Your task to perform on an android device: open wifi settings Image 0: 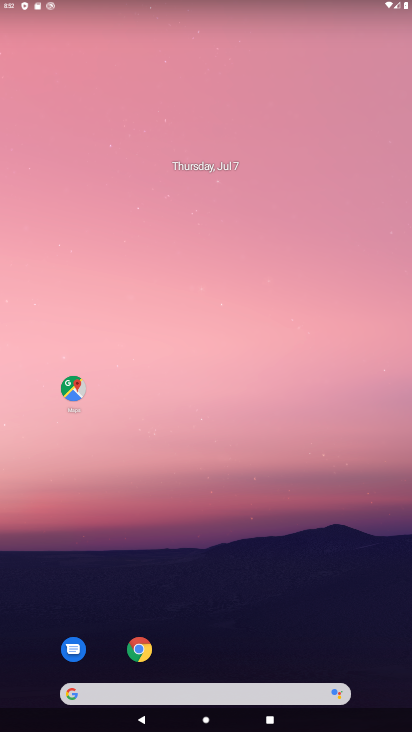
Step 0: click (300, 556)
Your task to perform on an android device: open wifi settings Image 1: 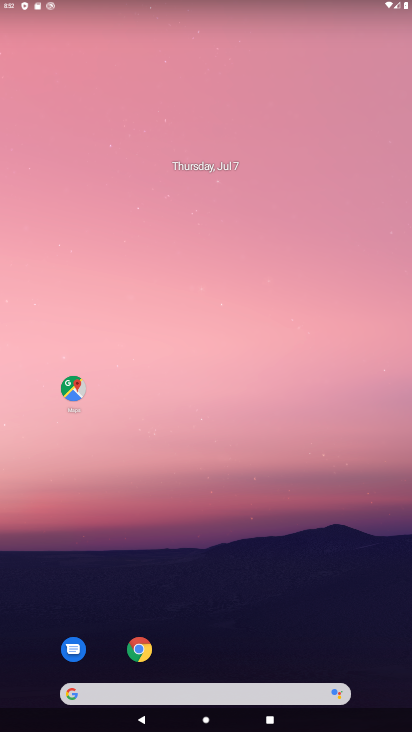
Step 1: drag from (300, 556) to (344, 396)
Your task to perform on an android device: open wifi settings Image 2: 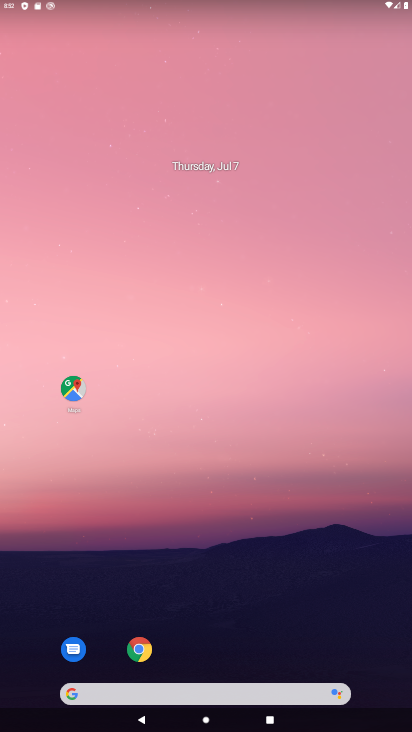
Step 2: drag from (282, 634) to (309, 196)
Your task to perform on an android device: open wifi settings Image 3: 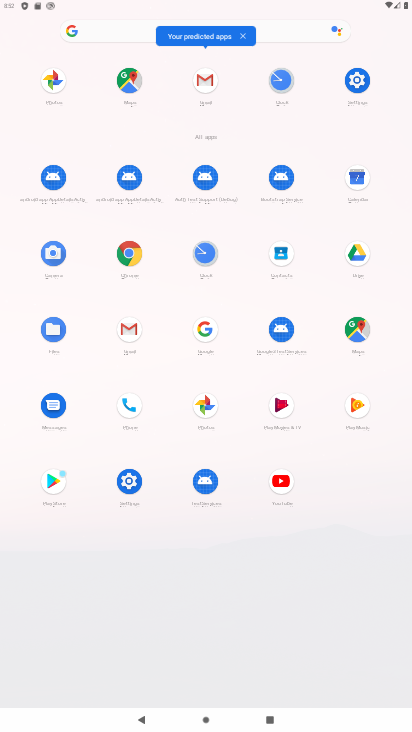
Step 3: click (354, 83)
Your task to perform on an android device: open wifi settings Image 4: 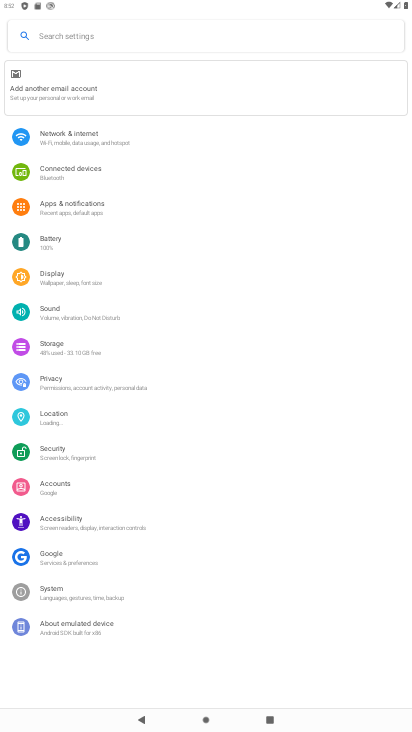
Step 4: click (81, 142)
Your task to perform on an android device: open wifi settings Image 5: 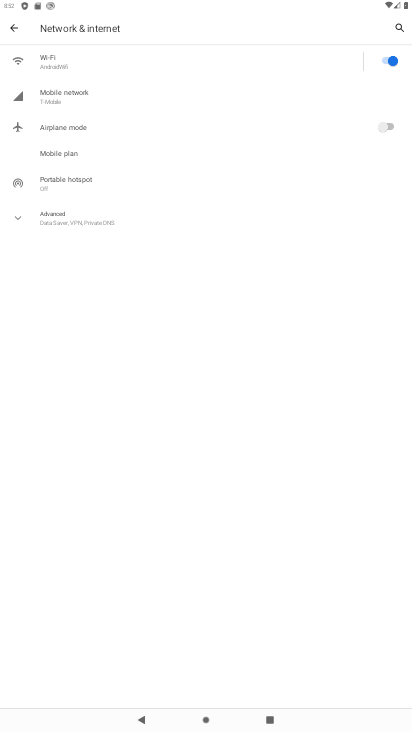
Step 5: task complete